Your task to perform on an android device: turn on data saver in the chrome app Image 0: 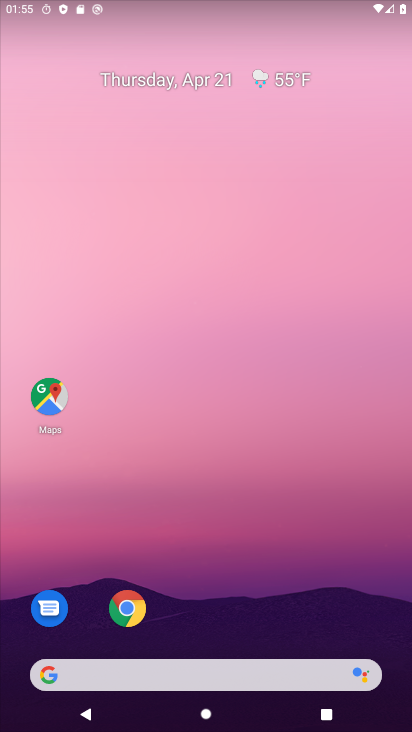
Step 0: click (116, 604)
Your task to perform on an android device: turn on data saver in the chrome app Image 1: 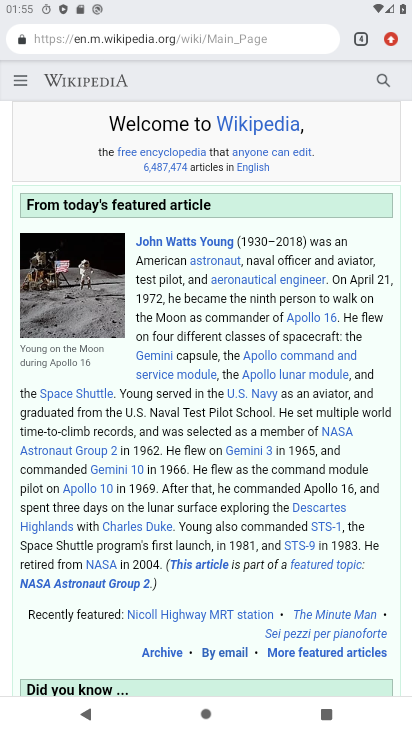
Step 1: drag from (395, 40) to (261, 520)
Your task to perform on an android device: turn on data saver in the chrome app Image 2: 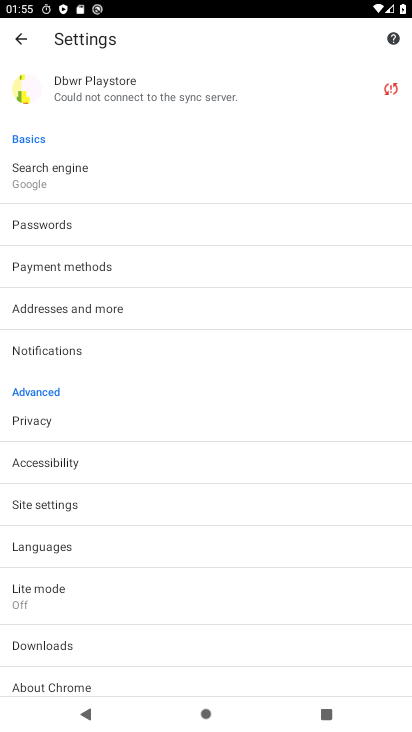
Step 2: click (34, 593)
Your task to perform on an android device: turn on data saver in the chrome app Image 3: 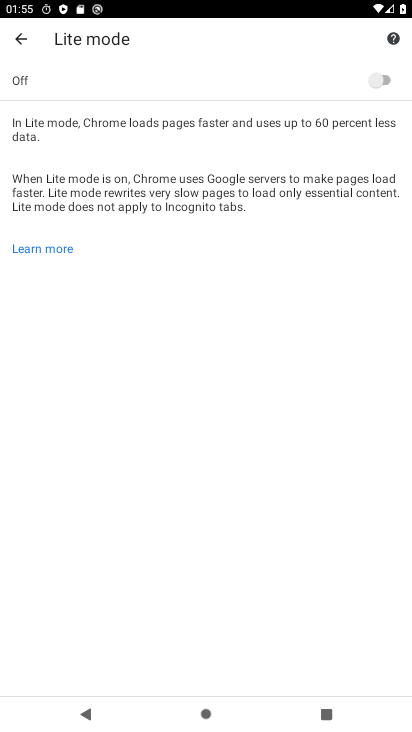
Step 3: click (373, 80)
Your task to perform on an android device: turn on data saver in the chrome app Image 4: 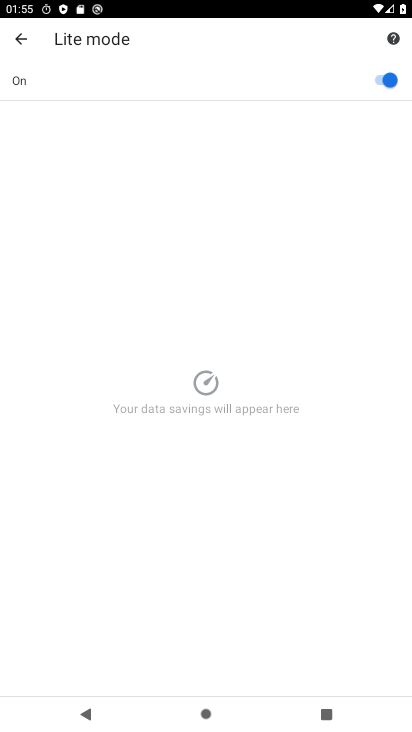
Step 4: task complete